Your task to perform on an android device: read, delete, or share a saved page in the chrome app Image 0: 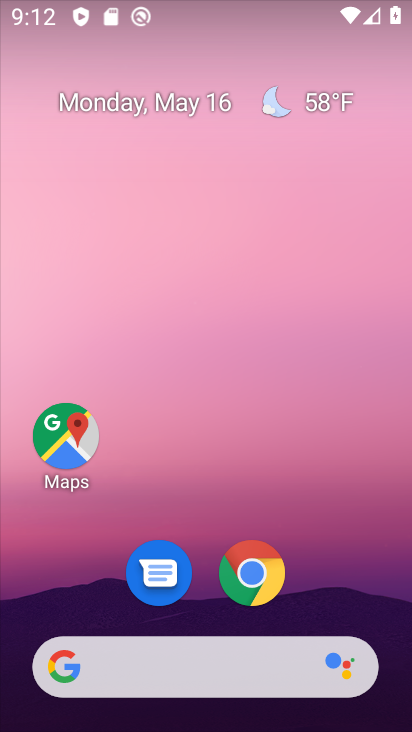
Step 0: drag from (374, 636) to (246, 293)
Your task to perform on an android device: read, delete, or share a saved page in the chrome app Image 1: 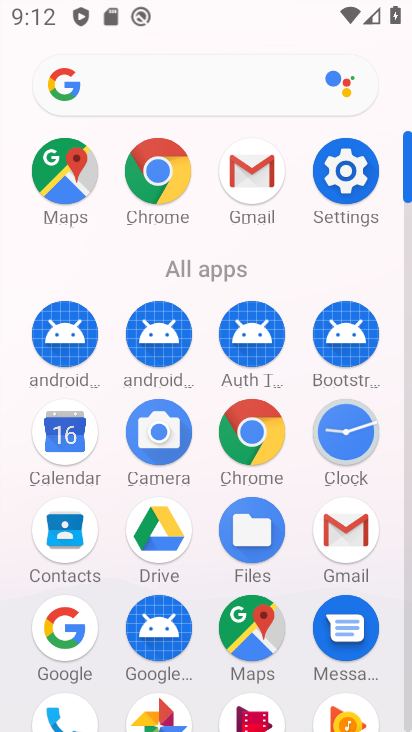
Step 1: click (133, 185)
Your task to perform on an android device: read, delete, or share a saved page in the chrome app Image 2: 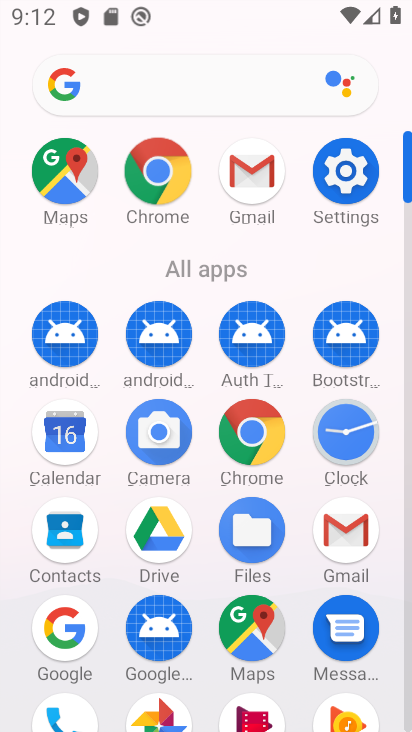
Step 2: click (147, 171)
Your task to perform on an android device: read, delete, or share a saved page in the chrome app Image 3: 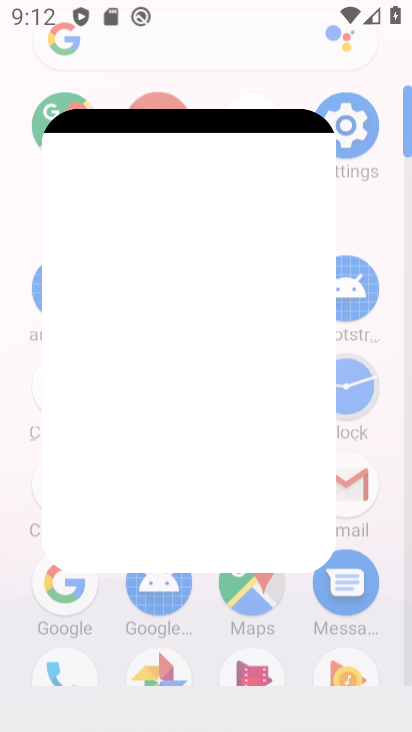
Step 3: click (147, 171)
Your task to perform on an android device: read, delete, or share a saved page in the chrome app Image 4: 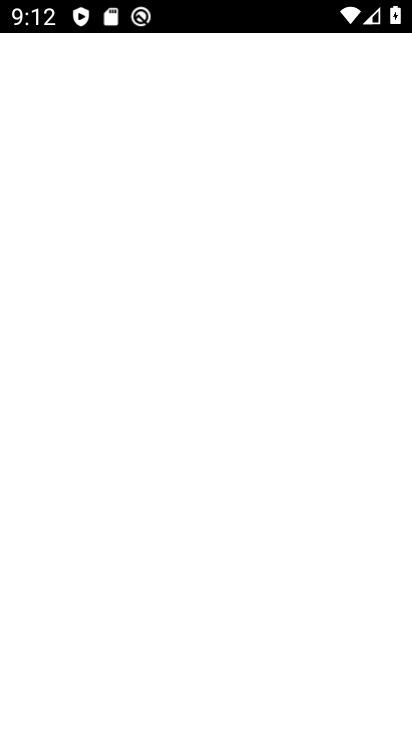
Step 4: click (148, 171)
Your task to perform on an android device: read, delete, or share a saved page in the chrome app Image 5: 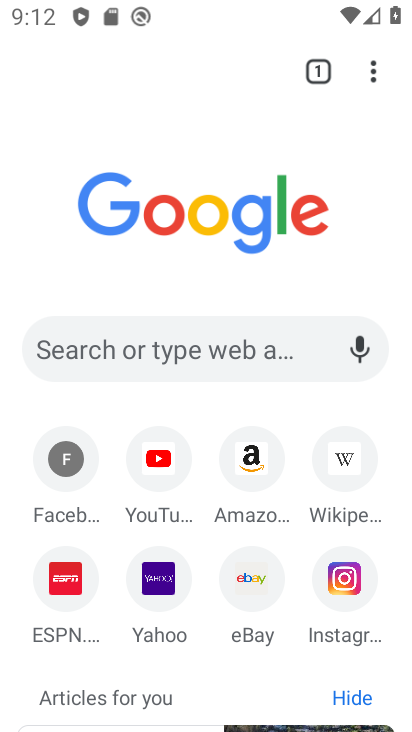
Step 5: click (366, 72)
Your task to perform on an android device: read, delete, or share a saved page in the chrome app Image 6: 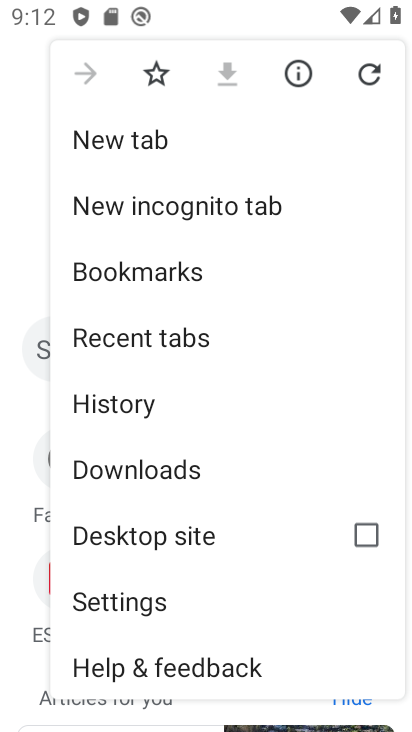
Step 6: click (138, 470)
Your task to perform on an android device: read, delete, or share a saved page in the chrome app Image 7: 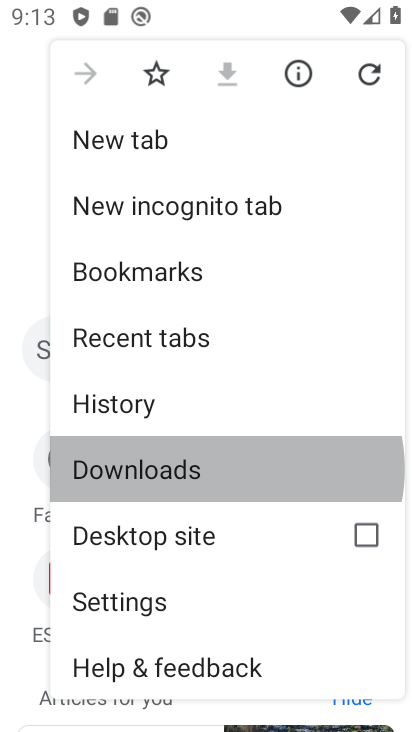
Step 7: click (139, 469)
Your task to perform on an android device: read, delete, or share a saved page in the chrome app Image 8: 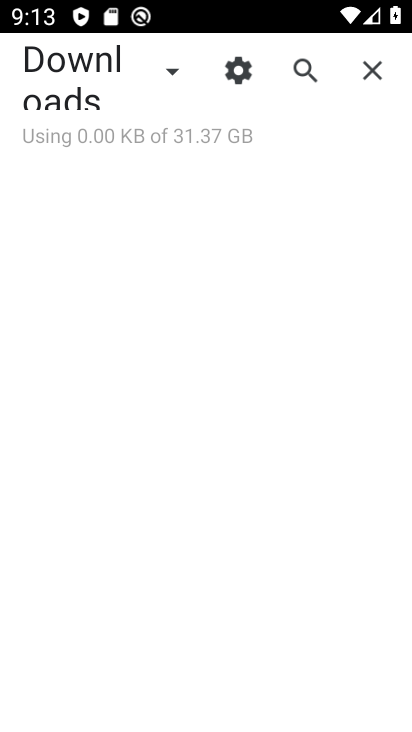
Step 8: click (164, 70)
Your task to perform on an android device: read, delete, or share a saved page in the chrome app Image 9: 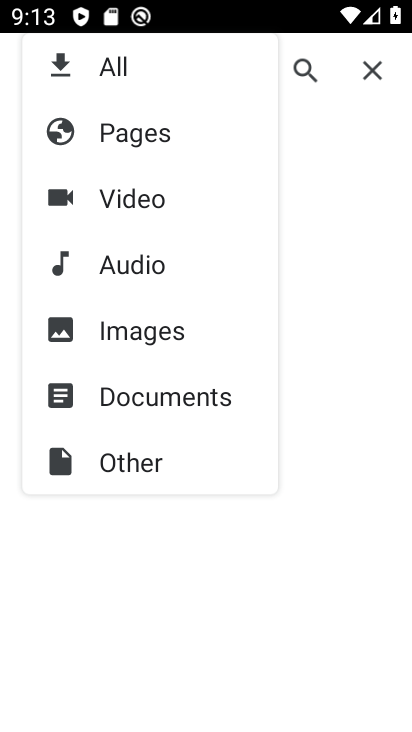
Step 9: click (133, 139)
Your task to perform on an android device: read, delete, or share a saved page in the chrome app Image 10: 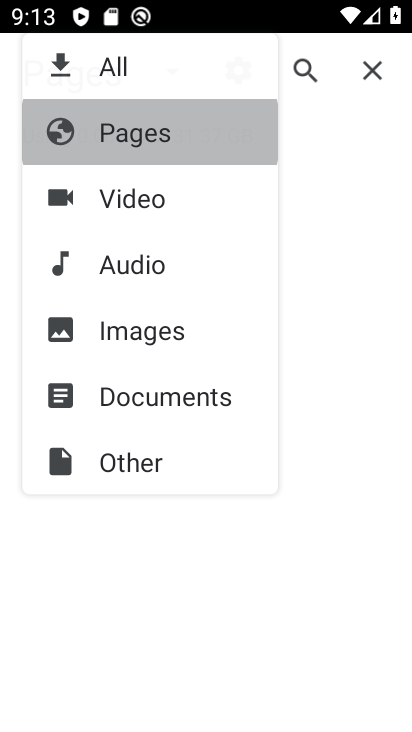
Step 10: click (135, 139)
Your task to perform on an android device: read, delete, or share a saved page in the chrome app Image 11: 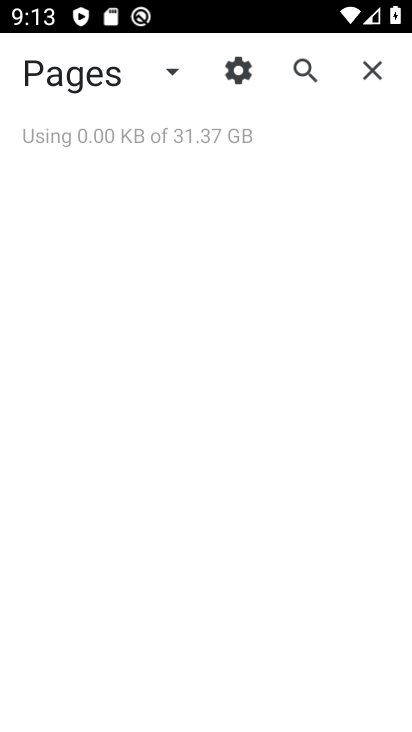
Step 11: task complete